Your task to perform on an android device: Check the news Image 0: 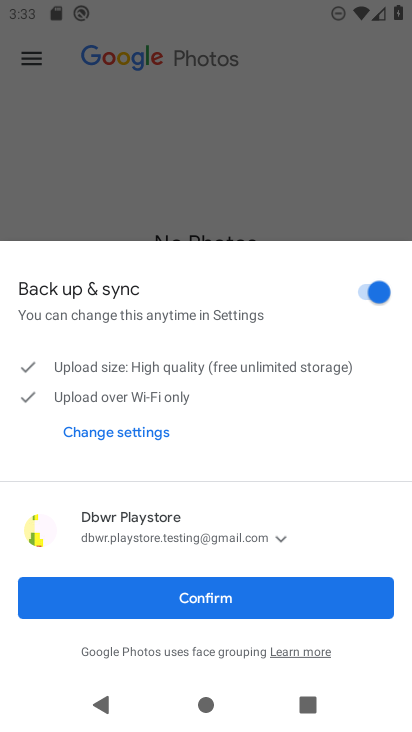
Step 0: press home button
Your task to perform on an android device: Check the news Image 1: 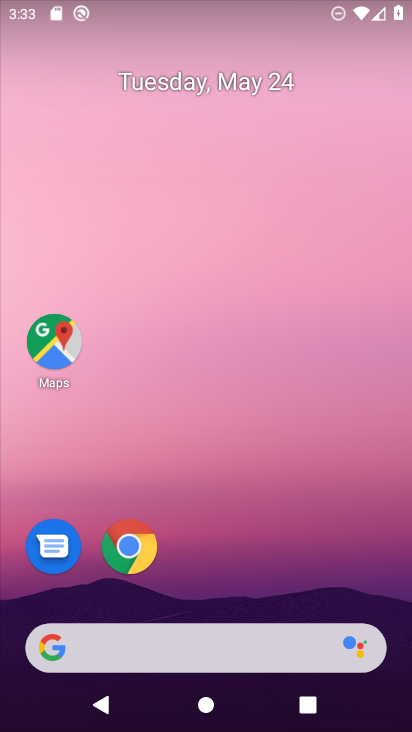
Step 1: drag from (251, 392) to (209, 174)
Your task to perform on an android device: Check the news Image 2: 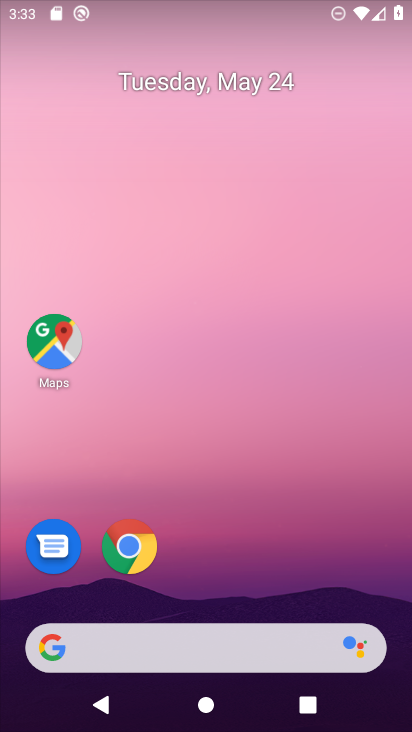
Step 2: drag from (314, 551) to (185, 111)
Your task to perform on an android device: Check the news Image 3: 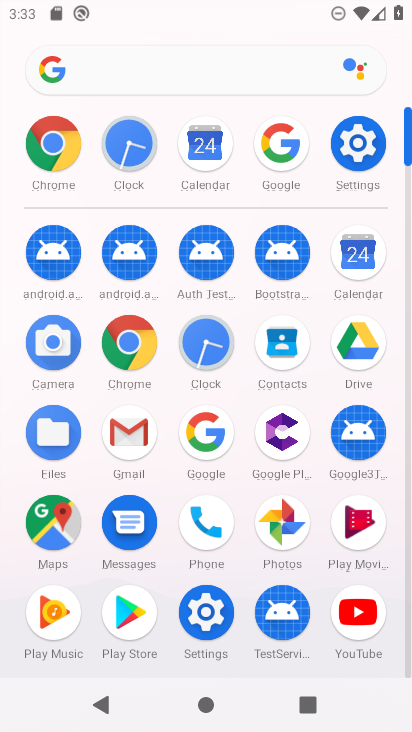
Step 3: click (219, 439)
Your task to perform on an android device: Check the news Image 4: 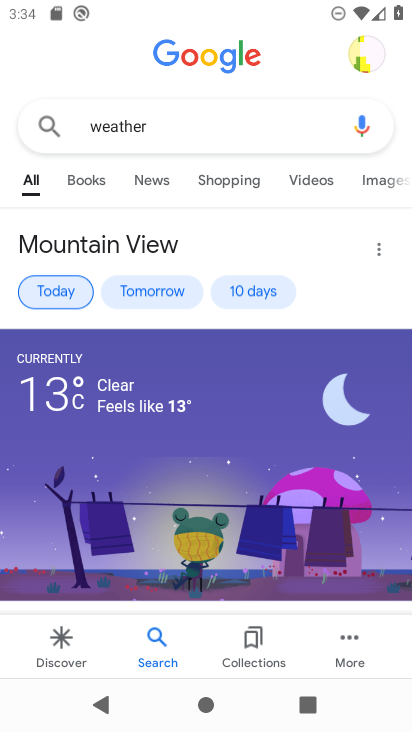
Step 4: click (220, 120)
Your task to perform on an android device: Check the news Image 5: 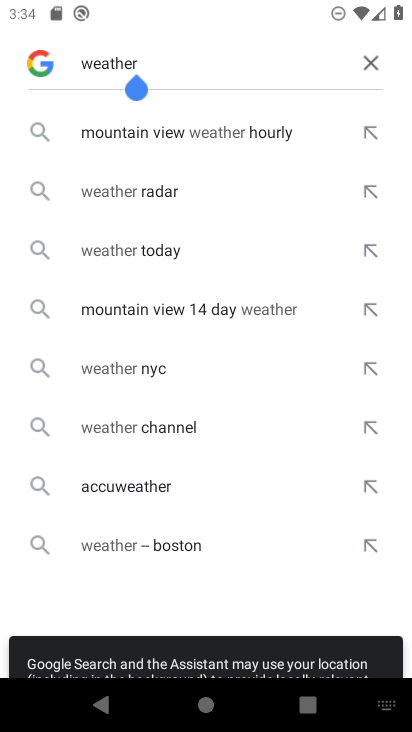
Step 5: click (375, 67)
Your task to perform on an android device: Check the news Image 6: 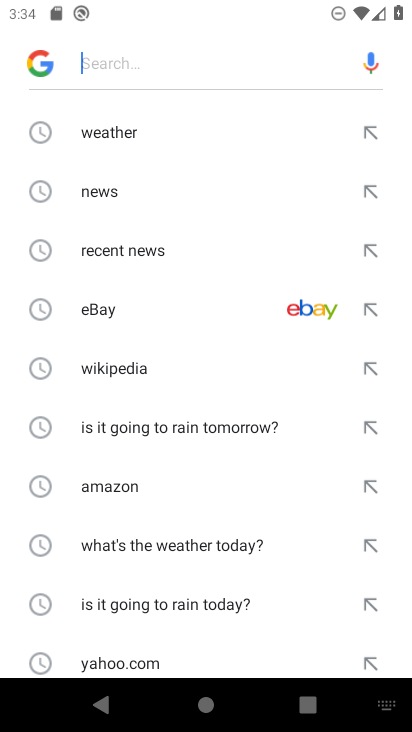
Step 6: click (128, 192)
Your task to perform on an android device: Check the news Image 7: 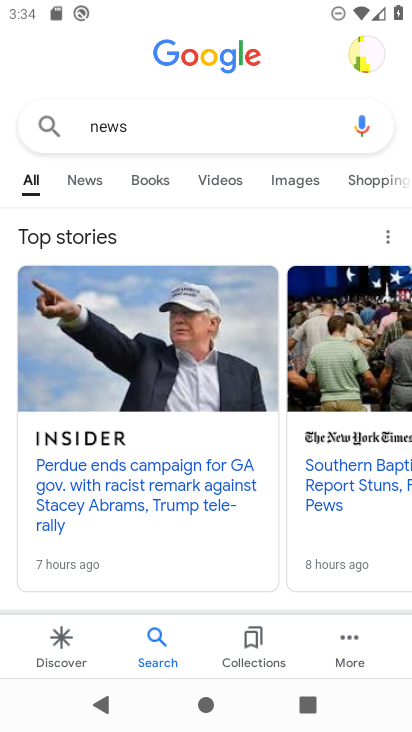
Step 7: task complete